Your task to perform on an android device: toggle priority inbox in the gmail app Image 0: 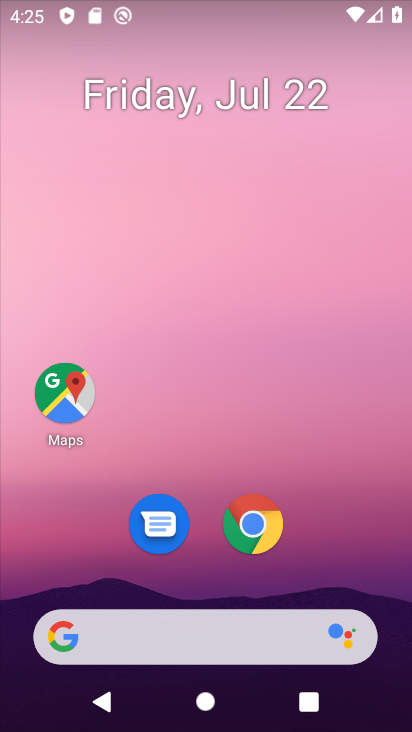
Step 0: drag from (341, 534) to (407, 52)
Your task to perform on an android device: toggle priority inbox in the gmail app Image 1: 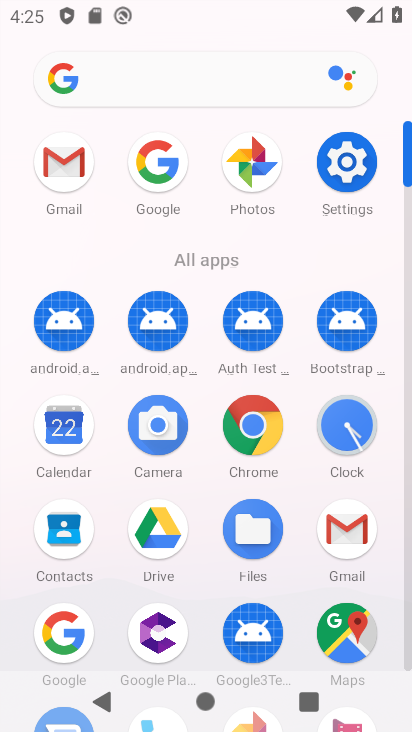
Step 1: click (62, 156)
Your task to perform on an android device: toggle priority inbox in the gmail app Image 2: 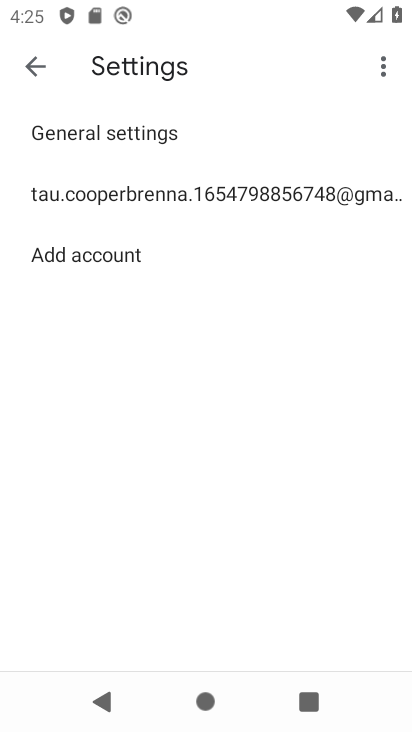
Step 2: click (276, 198)
Your task to perform on an android device: toggle priority inbox in the gmail app Image 3: 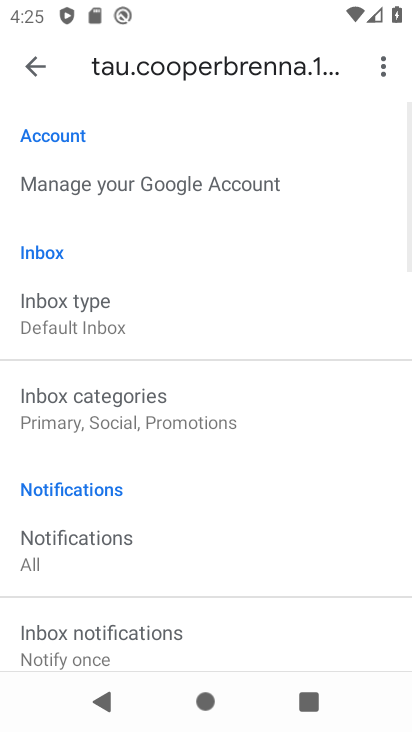
Step 3: click (114, 321)
Your task to perform on an android device: toggle priority inbox in the gmail app Image 4: 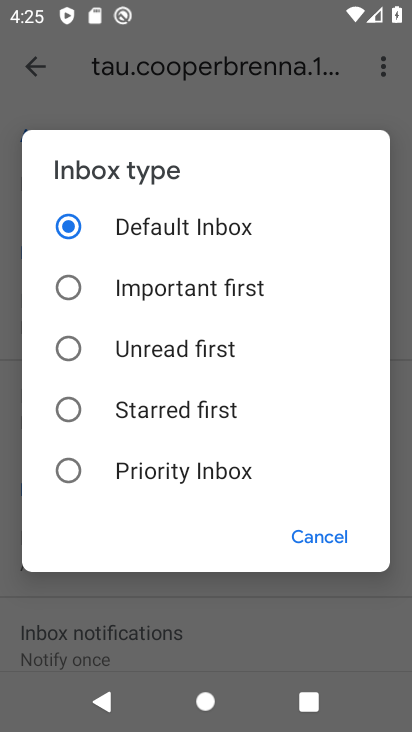
Step 4: click (63, 457)
Your task to perform on an android device: toggle priority inbox in the gmail app Image 5: 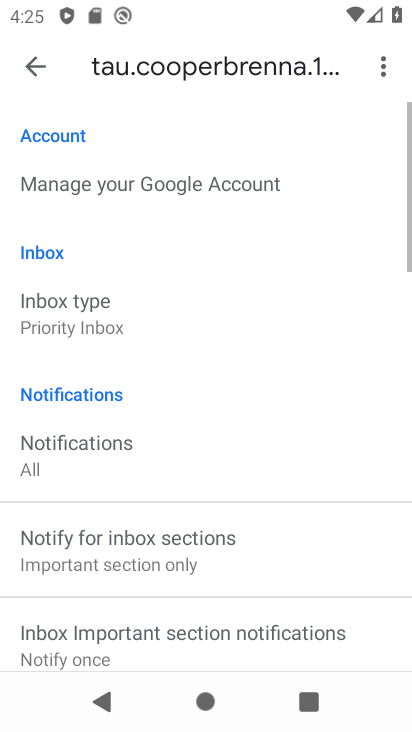
Step 5: task complete